Your task to perform on an android device: Open calendar and show me the fourth week of next month Image 0: 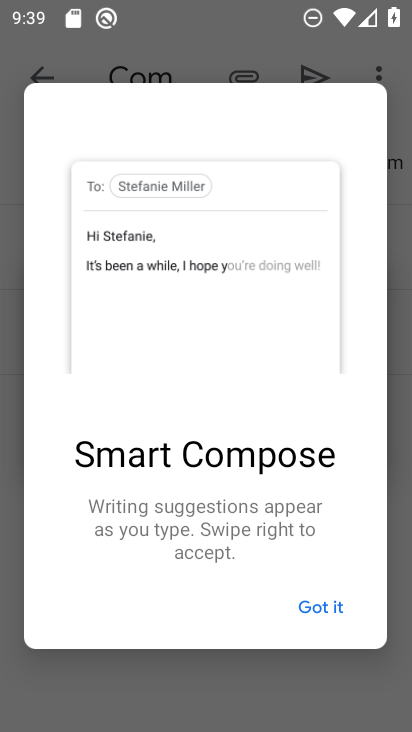
Step 0: press home button
Your task to perform on an android device: Open calendar and show me the fourth week of next month Image 1: 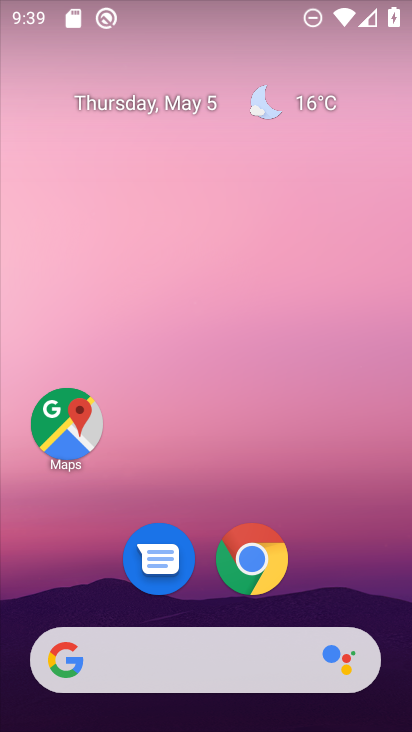
Step 1: drag from (360, 610) to (360, 66)
Your task to perform on an android device: Open calendar and show me the fourth week of next month Image 2: 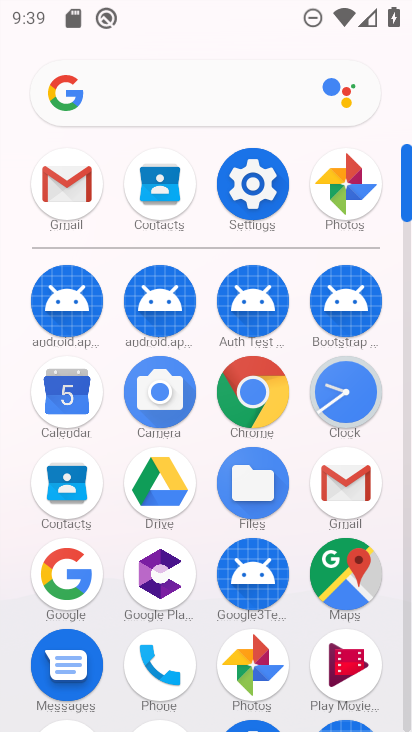
Step 2: click (65, 404)
Your task to perform on an android device: Open calendar and show me the fourth week of next month Image 3: 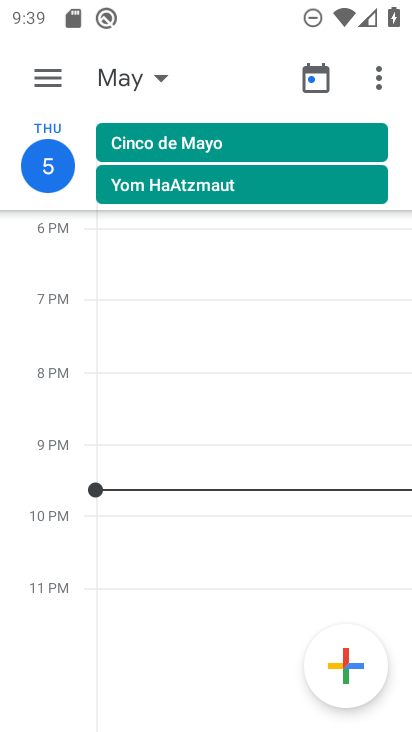
Step 3: click (161, 81)
Your task to perform on an android device: Open calendar and show me the fourth week of next month Image 4: 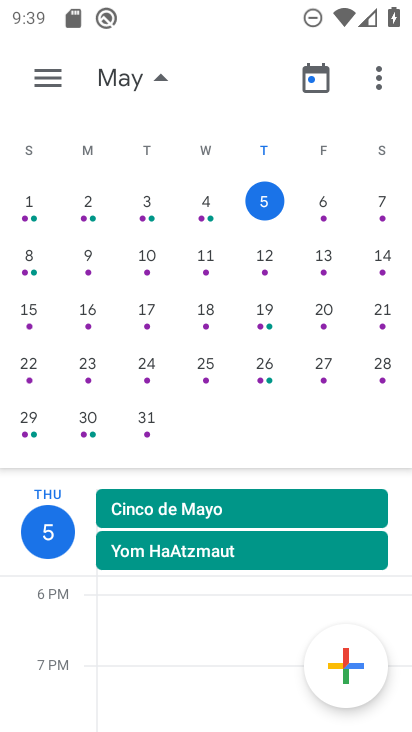
Step 4: drag from (301, 332) to (29, 339)
Your task to perform on an android device: Open calendar and show me the fourth week of next month Image 5: 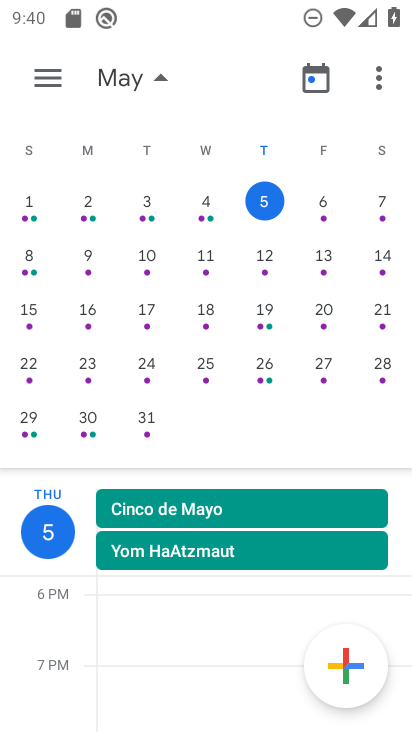
Step 5: drag from (312, 296) to (14, 314)
Your task to perform on an android device: Open calendar and show me the fourth week of next month Image 6: 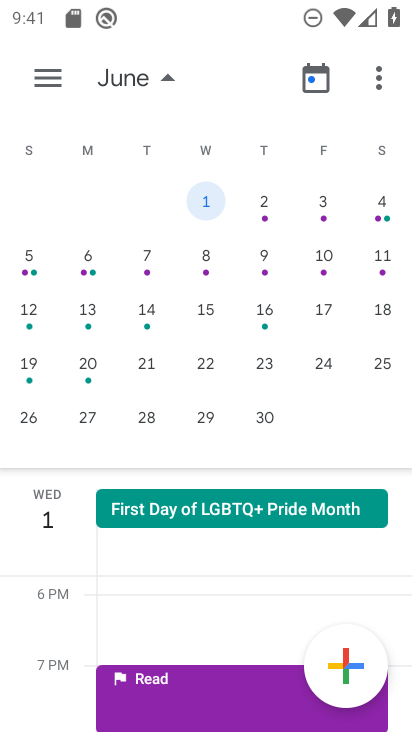
Step 6: click (45, 85)
Your task to perform on an android device: Open calendar and show me the fourth week of next month Image 7: 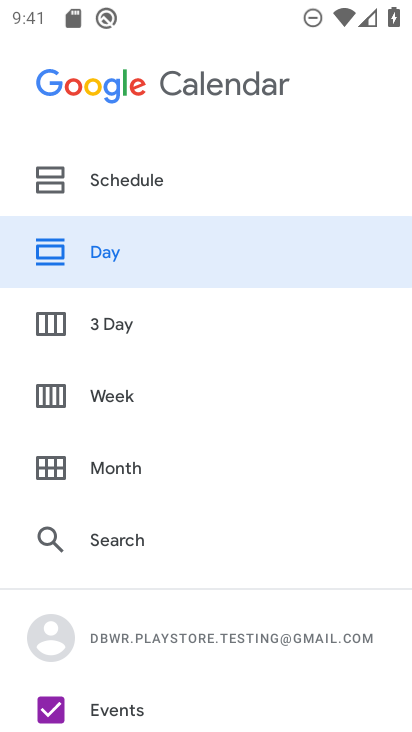
Step 7: click (115, 403)
Your task to perform on an android device: Open calendar and show me the fourth week of next month Image 8: 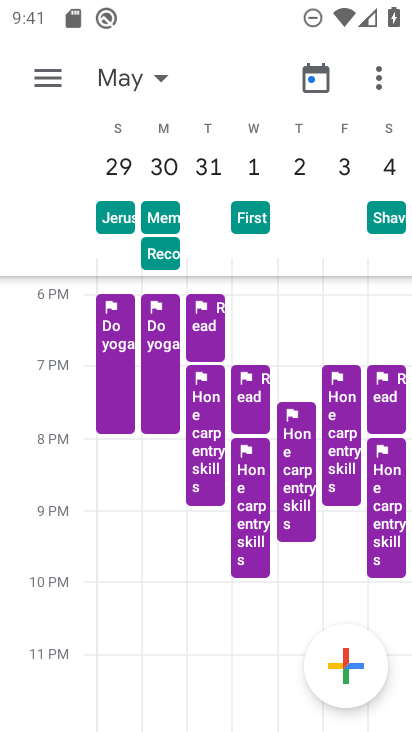
Step 8: click (166, 81)
Your task to perform on an android device: Open calendar and show me the fourth week of next month Image 9: 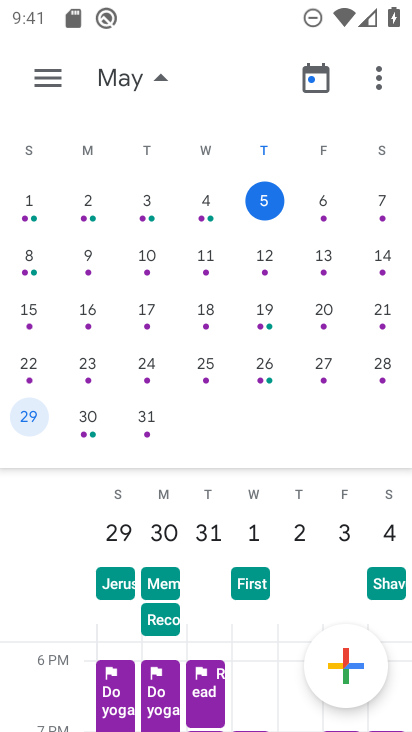
Step 9: drag from (305, 288) to (18, 327)
Your task to perform on an android device: Open calendar and show me the fourth week of next month Image 10: 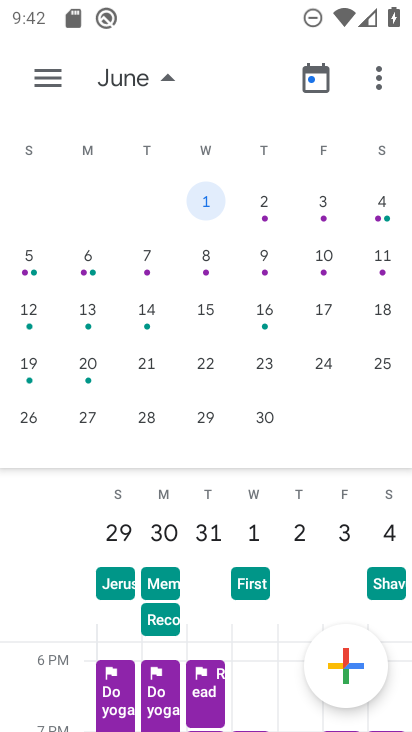
Step 10: drag from (276, 526) to (34, 658)
Your task to perform on an android device: Open calendar and show me the fourth week of next month Image 11: 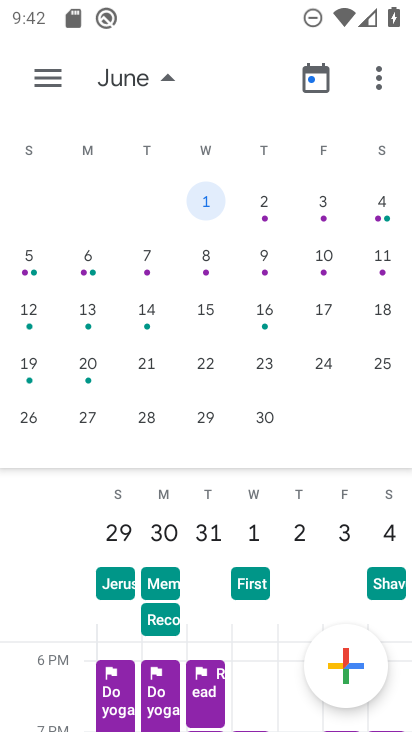
Step 11: drag from (239, 666) to (256, 115)
Your task to perform on an android device: Open calendar and show me the fourth week of next month Image 12: 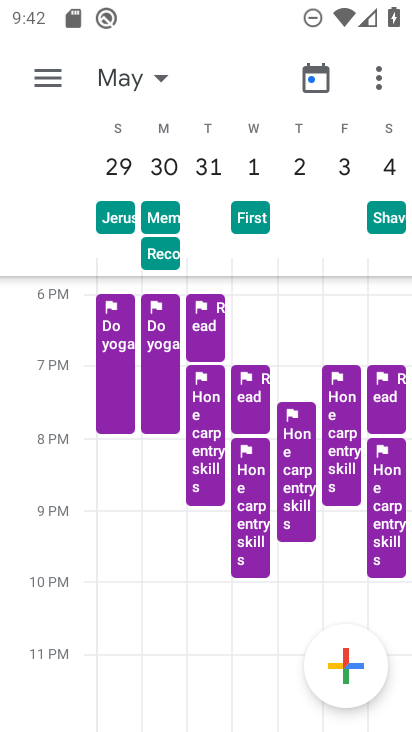
Step 12: click (153, 81)
Your task to perform on an android device: Open calendar and show me the fourth week of next month Image 13: 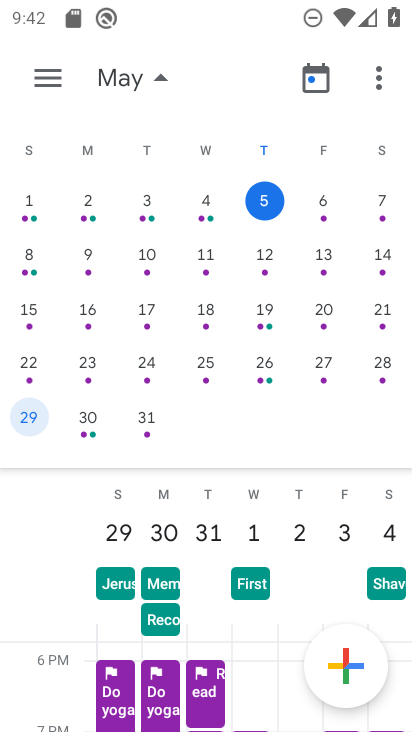
Step 13: drag from (295, 330) to (18, 515)
Your task to perform on an android device: Open calendar and show me the fourth week of next month Image 14: 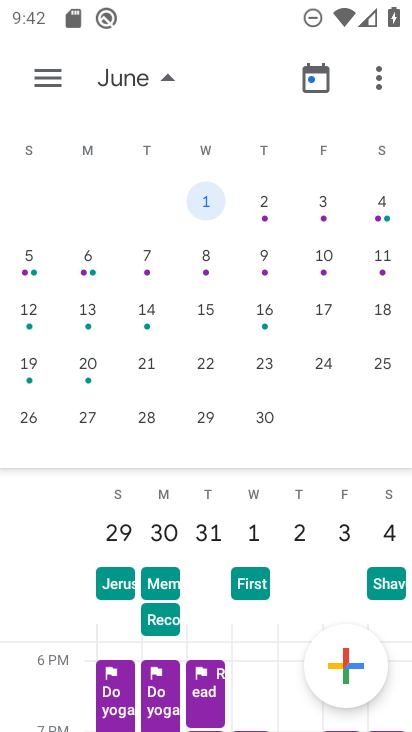
Step 14: drag from (235, 690) to (3, 678)
Your task to perform on an android device: Open calendar and show me the fourth week of next month Image 15: 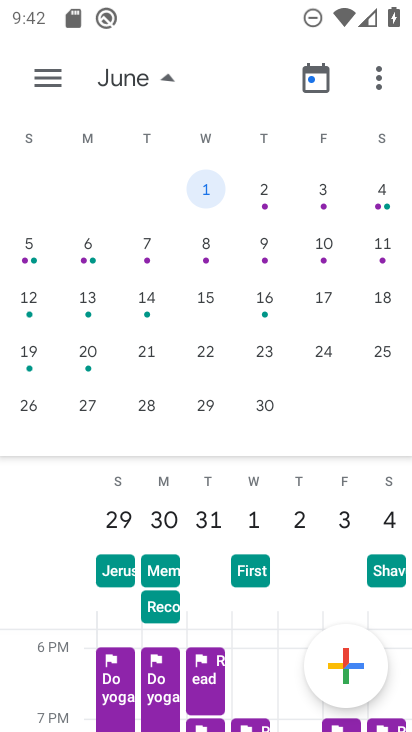
Step 15: click (44, 79)
Your task to perform on an android device: Open calendar and show me the fourth week of next month Image 16: 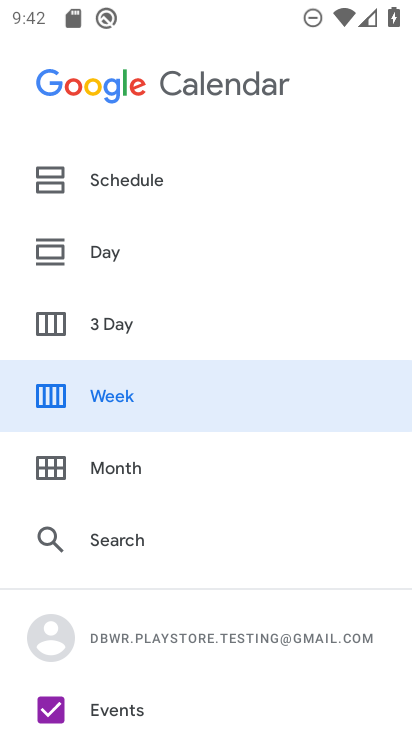
Step 16: click (102, 395)
Your task to perform on an android device: Open calendar and show me the fourth week of next month Image 17: 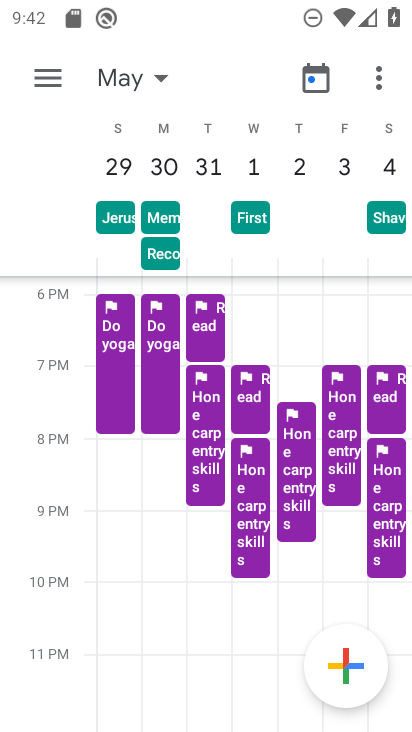
Step 17: task complete